Your task to perform on an android device: turn on notifications settings in the gmail app Image 0: 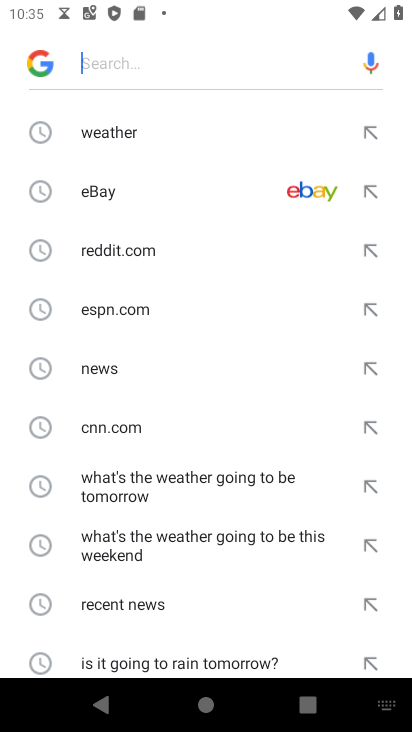
Step 0: press home button
Your task to perform on an android device: turn on notifications settings in the gmail app Image 1: 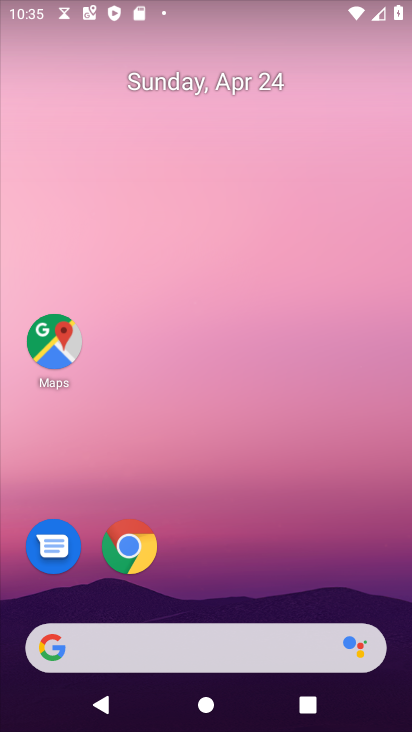
Step 1: drag from (332, 578) to (345, 3)
Your task to perform on an android device: turn on notifications settings in the gmail app Image 2: 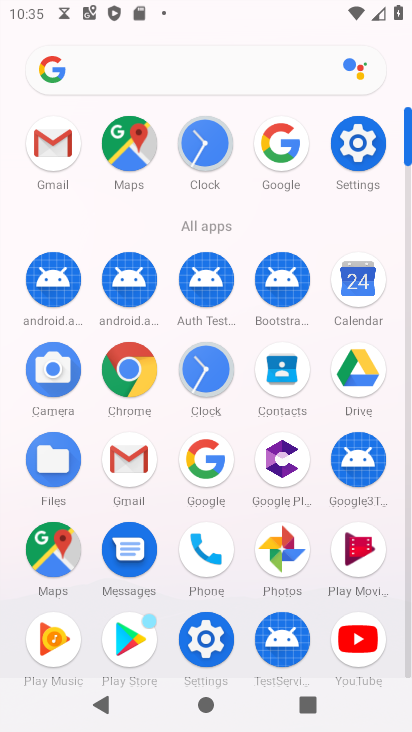
Step 2: click (56, 152)
Your task to perform on an android device: turn on notifications settings in the gmail app Image 3: 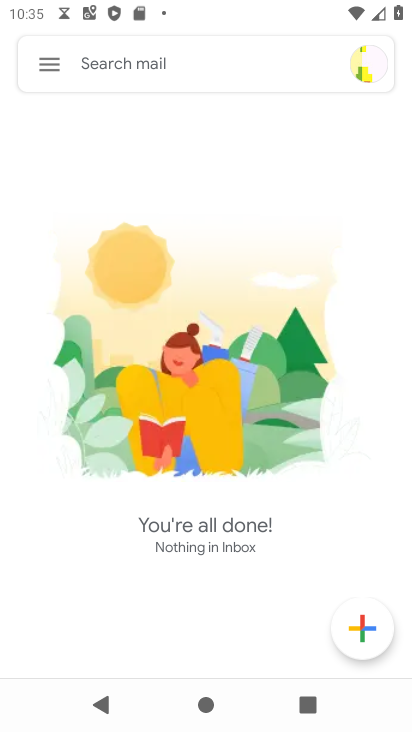
Step 3: click (48, 67)
Your task to perform on an android device: turn on notifications settings in the gmail app Image 4: 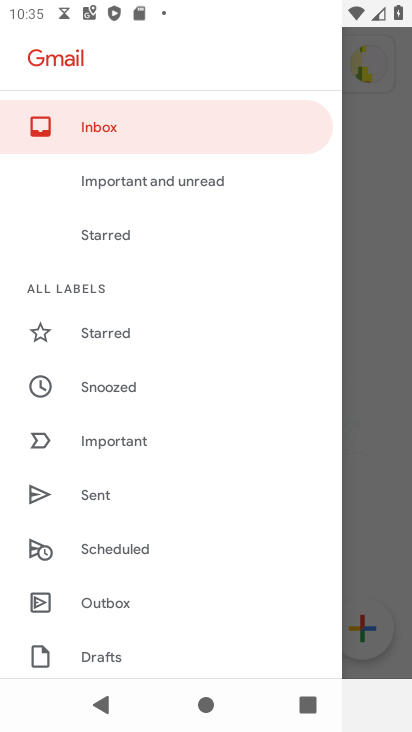
Step 4: drag from (165, 554) to (147, 171)
Your task to perform on an android device: turn on notifications settings in the gmail app Image 5: 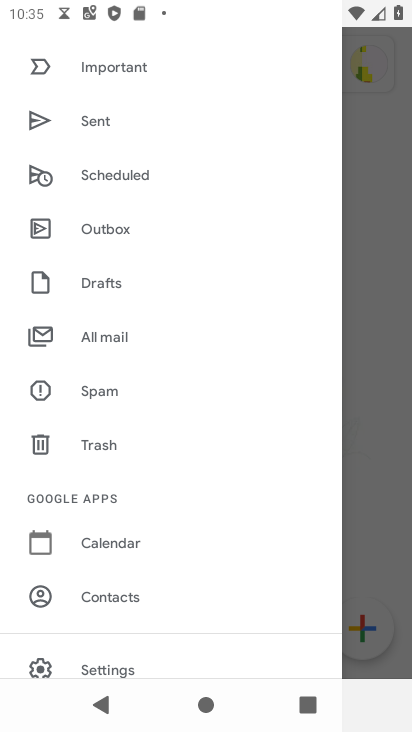
Step 5: click (108, 665)
Your task to perform on an android device: turn on notifications settings in the gmail app Image 6: 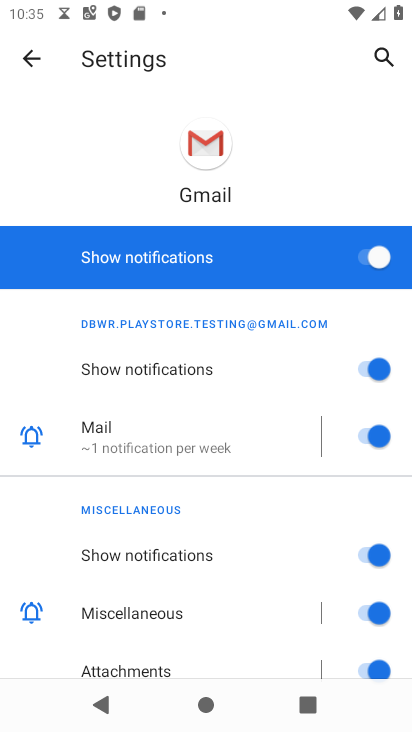
Step 6: task complete